Your task to perform on an android device: toggle notifications settings in the gmail app Image 0: 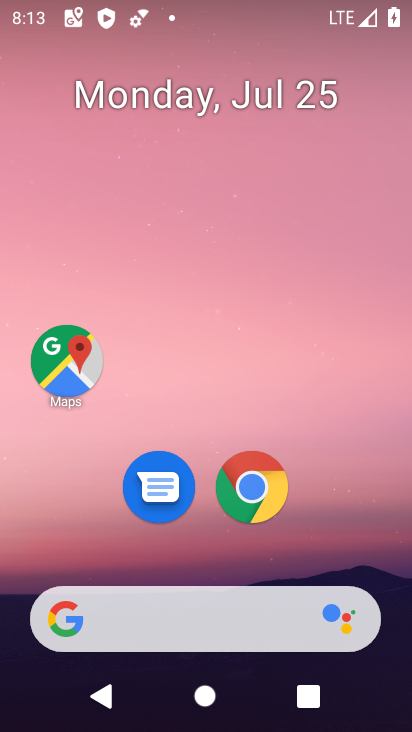
Step 0: drag from (152, 560) to (246, 65)
Your task to perform on an android device: toggle notifications settings in the gmail app Image 1: 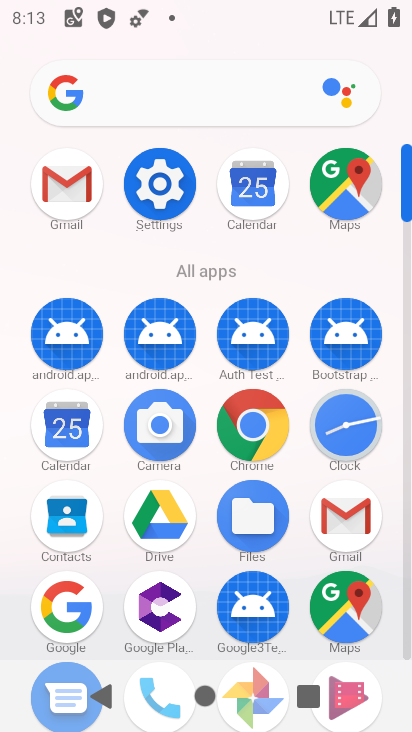
Step 1: click (73, 174)
Your task to perform on an android device: toggle notifications settings in the gmail app Image 2: 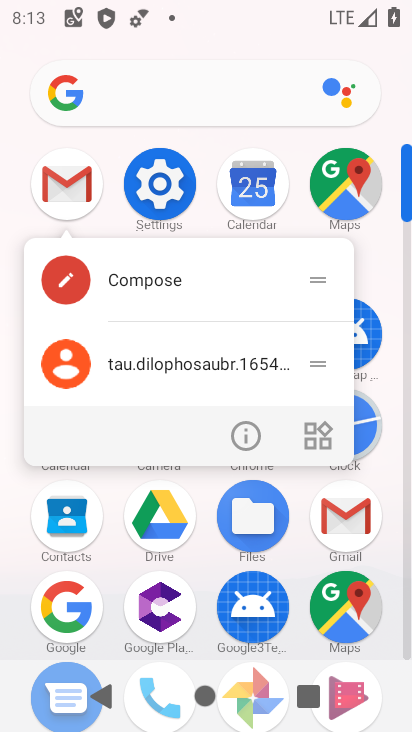
Step 2: click (245, 434)
Your task to perform on an android device: toggle notifications settings in the gmail app Image 3: 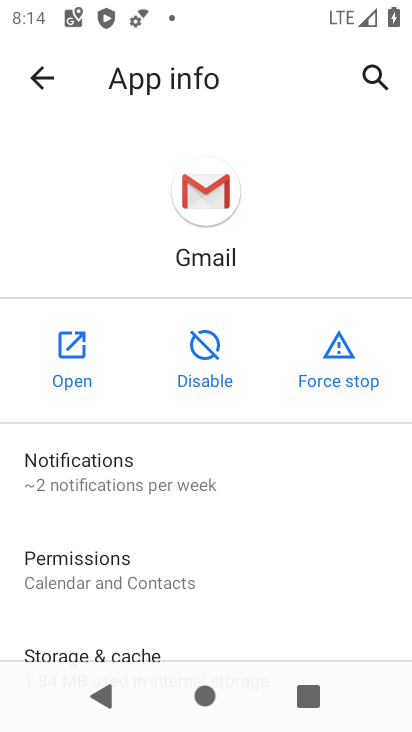
Step 3: click (175, 470)
Your task to perform on an android device: toggle notifications settings in the gmail app Image 4: 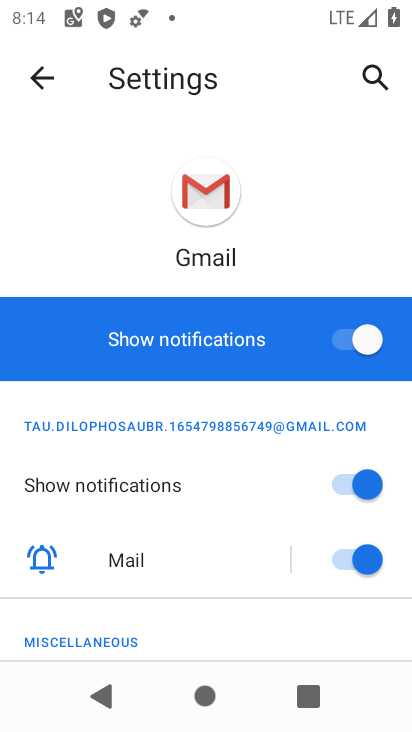
Step 4: click (368, 329)
Your task to perform on an android device: toggle notifications settings in the gmail app Image 5: 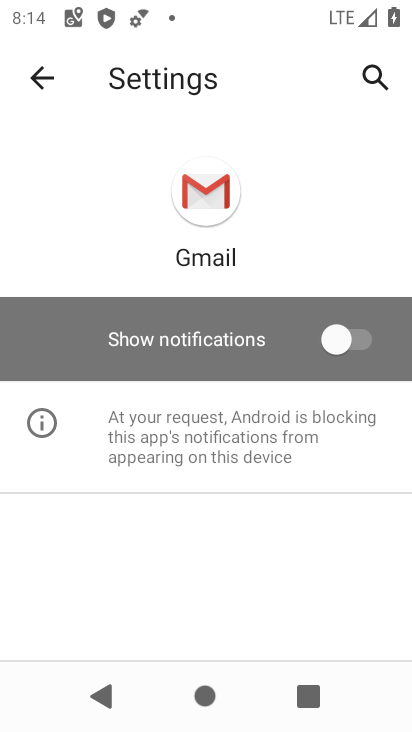
Step 5: task complete